Your task to perform on an android device: change the clock display to digital Image 0: 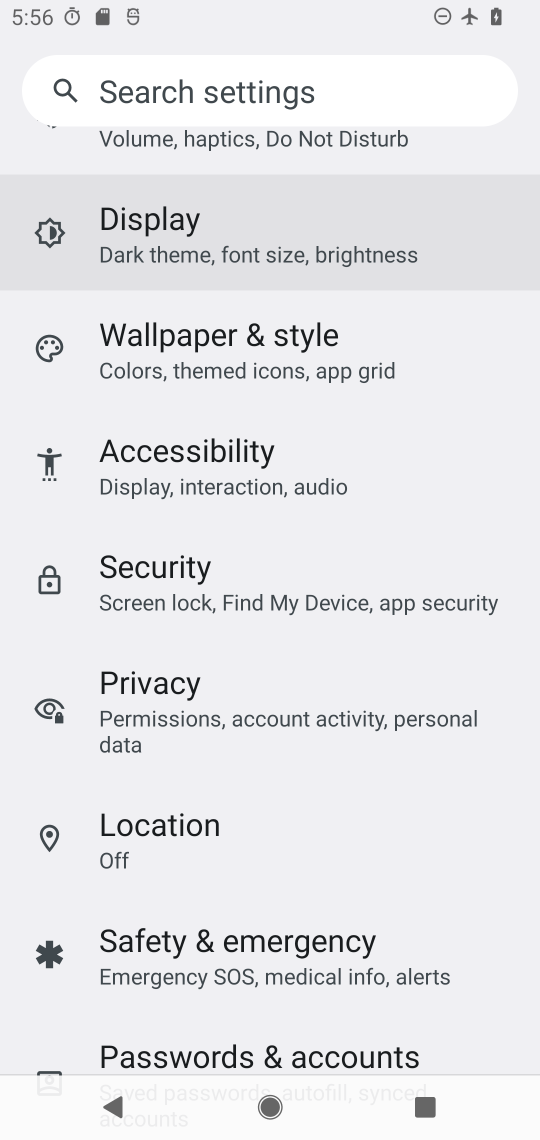
Step 0: press home button
Your task to perform on an android device: change the clock display to digital Image 1: 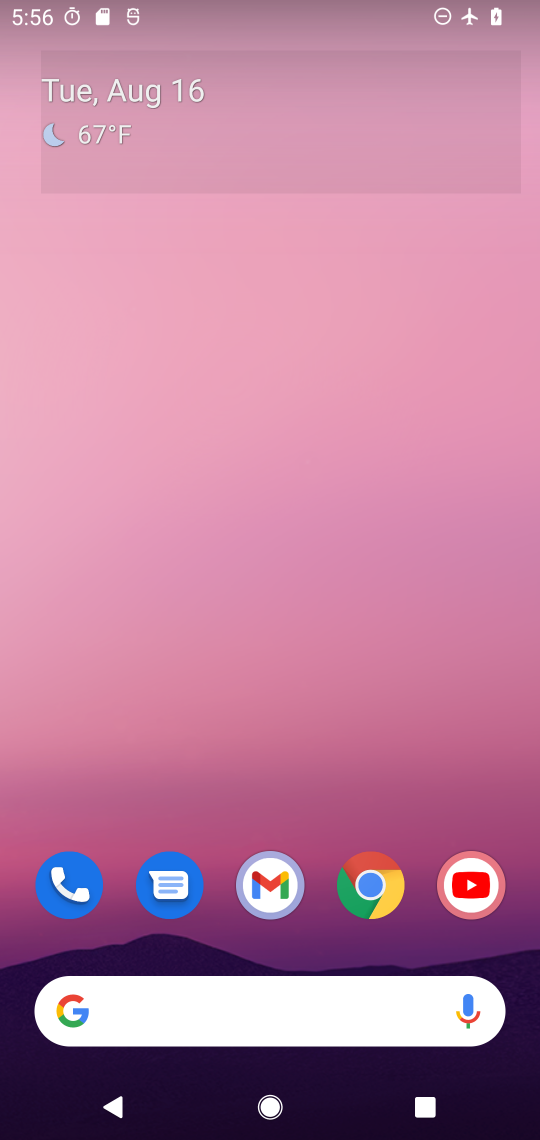
Step 1: drag from (293, 963) to (304, 234)
Your task to perform on an android device: change the clock display to digital Image 2: 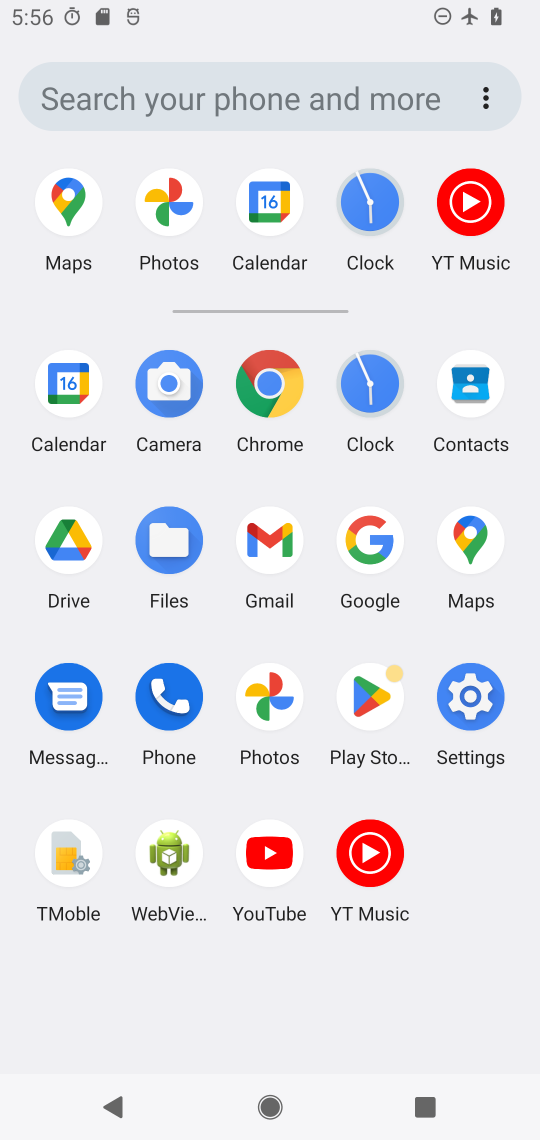
Step 2: click (359, 378)
Your task to perform on an android device: change the clock display to digital Image 3: 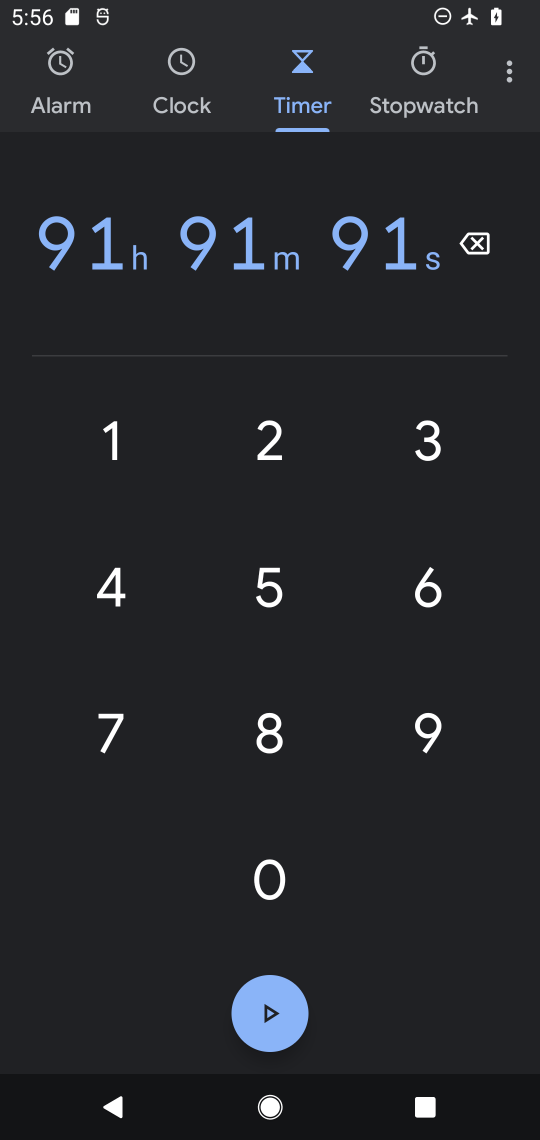
Step 3: click (523, 75)
Your task to perform on an android device: change the clock display to digital Image 4: 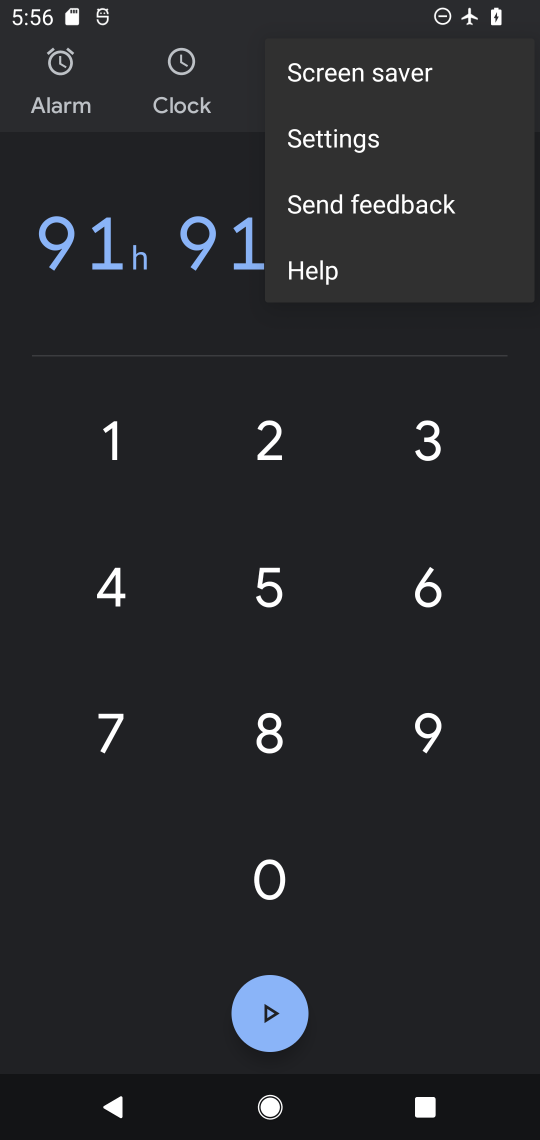
Step 4: click (362, 146)
Your task to perform on an android device: change the clock display to digital Image 5: 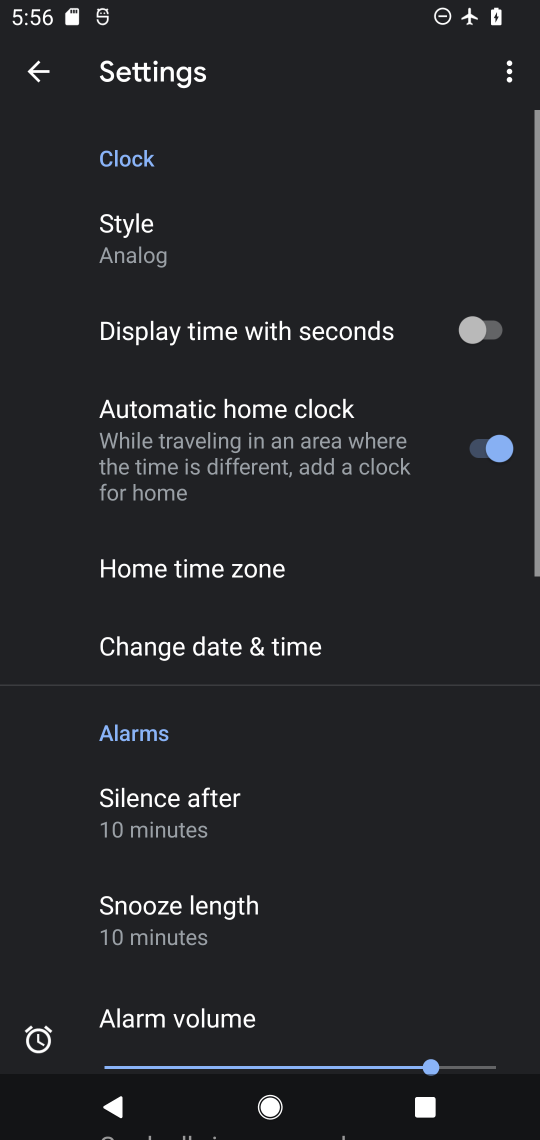
Step 5: click (144, 221)
Your task to perform on an android device: change the clock display to digital Image 6: 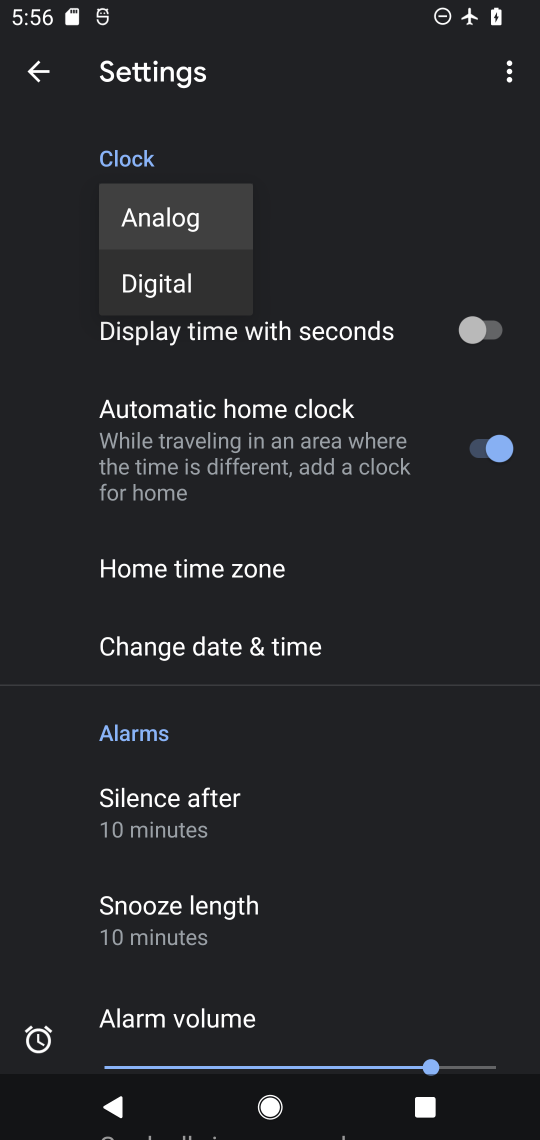
Step 6: click (167, 277)
Your task to perform on an android device: change the clock display to digital Image 7: 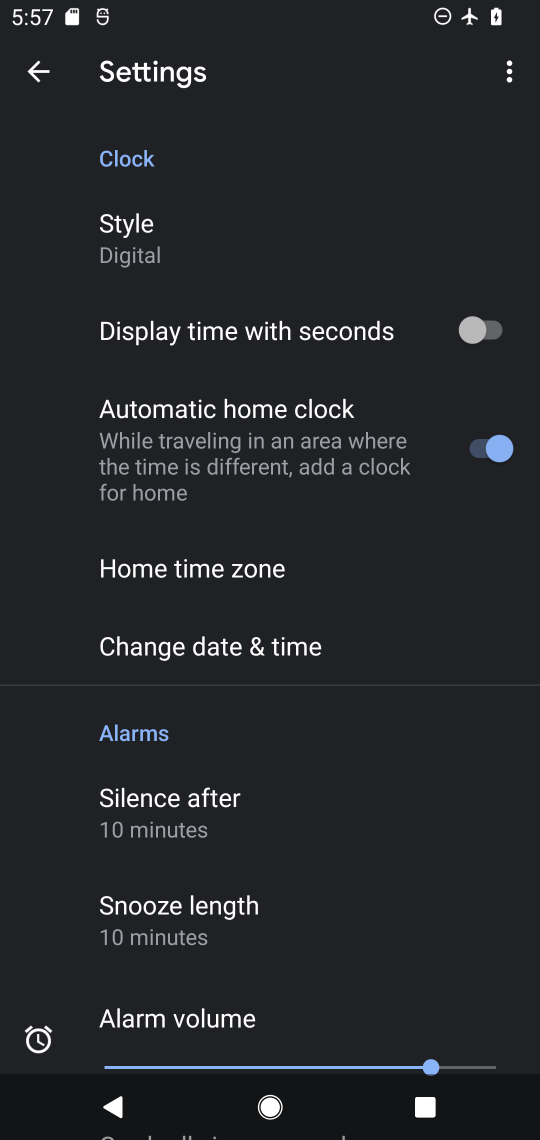
Step 7: task complete